Your task to perform on an android device: Go to notification settings Image 0: 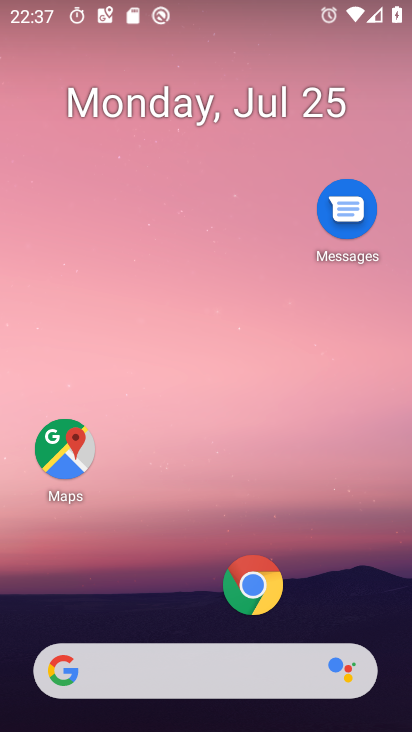
Step 0: press home button
Your task to perform on an android device: Go to notification settings Image 1: 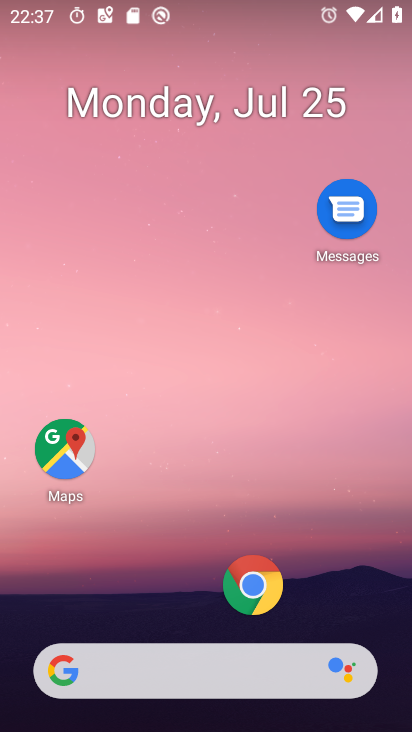
Step 1: drag from (174, 683) to (287, 116)
Your task to perform on an android device: Go to notification settings Image 2: 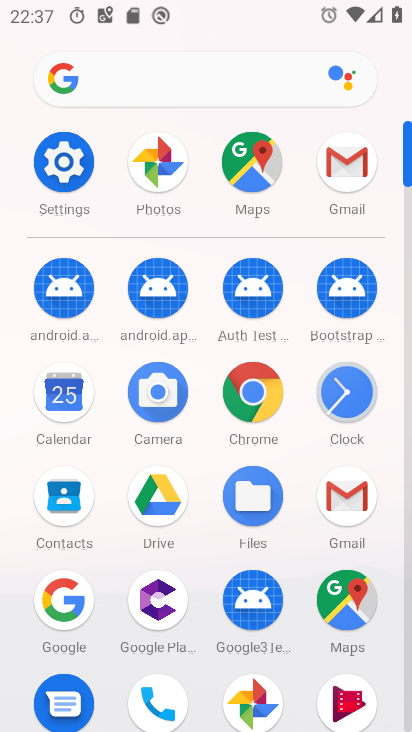
Step 2: click (71, 162)
Your task to perform on an android device: Go to notification settings Image 3: 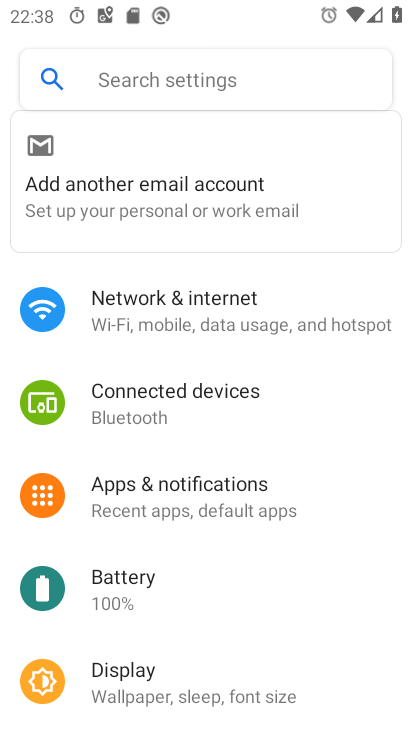
Step 3: click (213, 496)
Your task to perform on an android device: Go to notification settings Image 4: 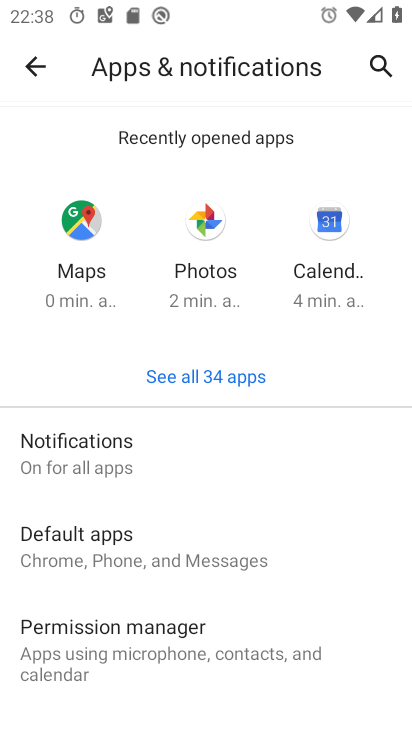
Step 4: click (101, 463)
Your task to perform on an android device: Go to notification settings Image 5: 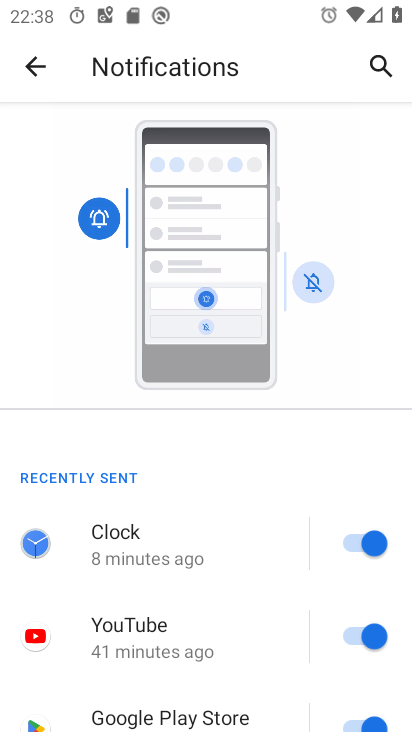
Step 5: task complete